Your task to perform on an android device: clear history in the chrome app Image 0: 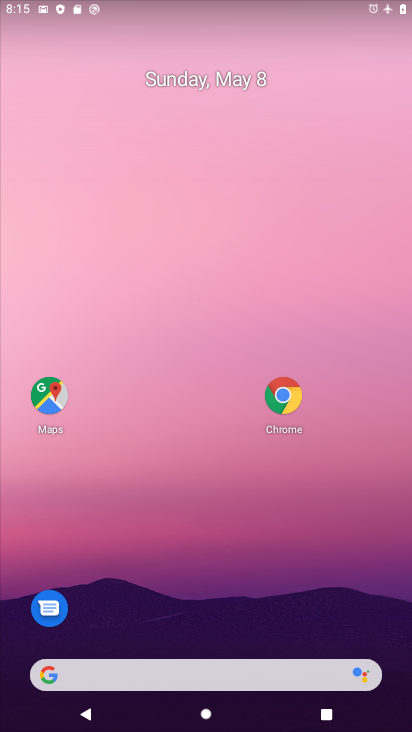
Step 0: drag from (204, 681) to (321, 233)
Your task to perform on an android device: clear history in the chrome app Image 1: 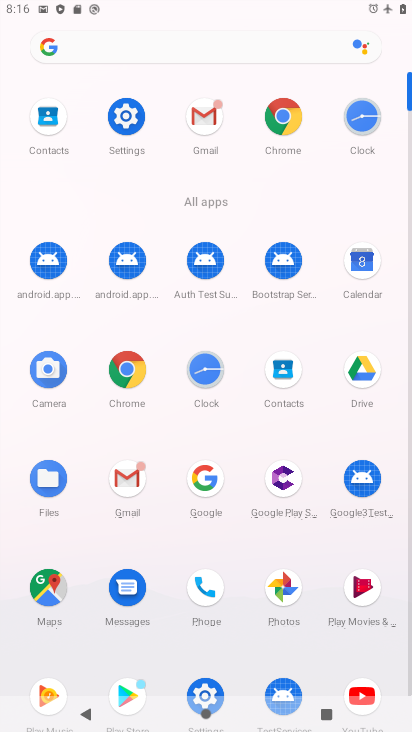
Step 1: click (292, 116)
Your task to perform on an android device: clear history in the chrome app Image 2: 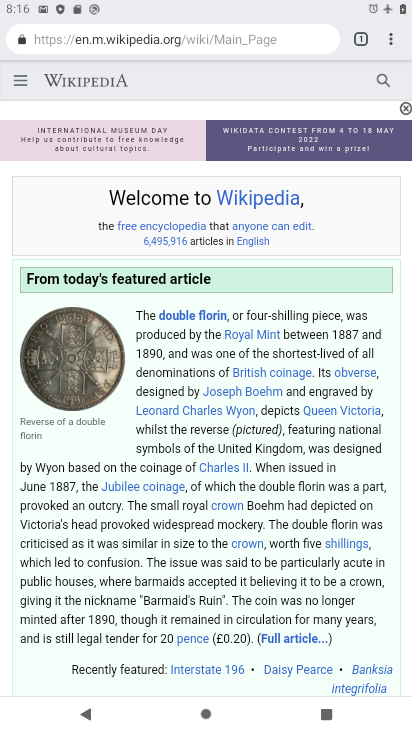
Step 2: drag from (388, 41) to (254, 221)
Your task to perform on an android device: clear history in the chrome app Image 3: 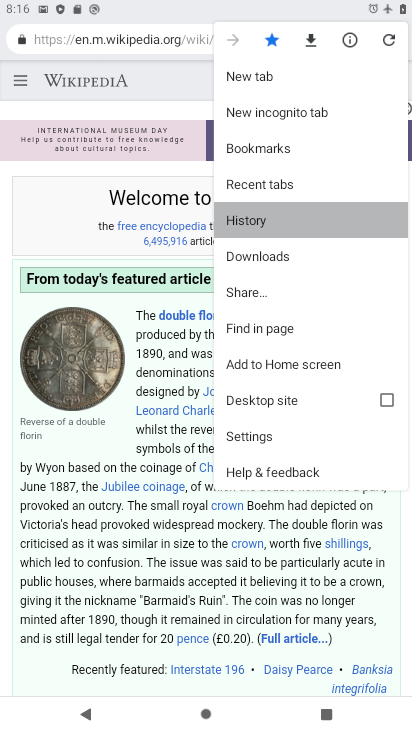
Step 3: click (254, 221)
Your task to perform on an android device: clear history in the chrome app Image 4: 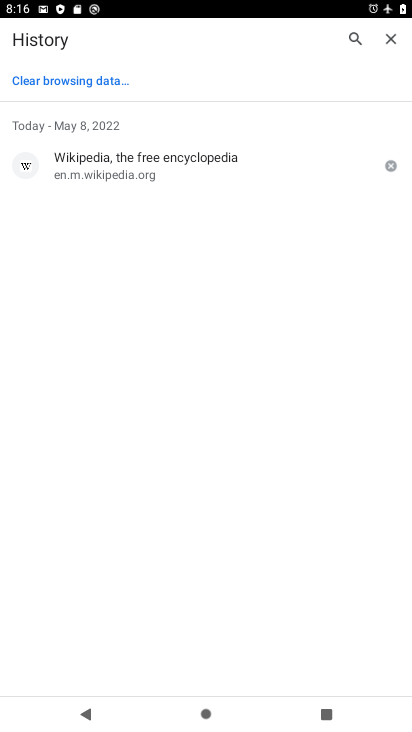
Step 4: click (46, 78)
Your task to perform on an android device: clear history in the chrome app Image 5: 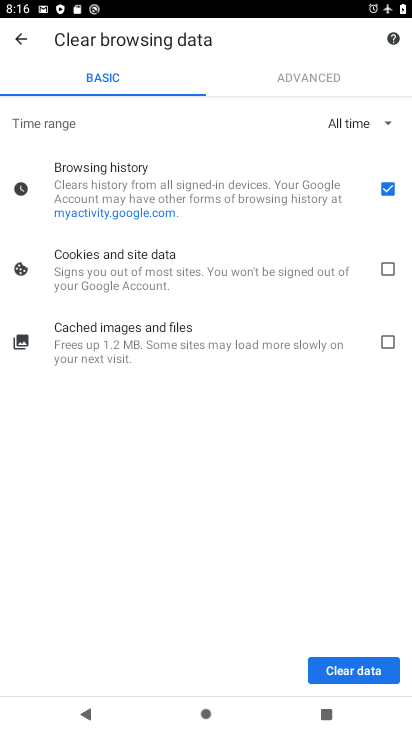
Step 5: click (390, 269)
Your task to perform on an android device: clear history in the chrome app Image 6: 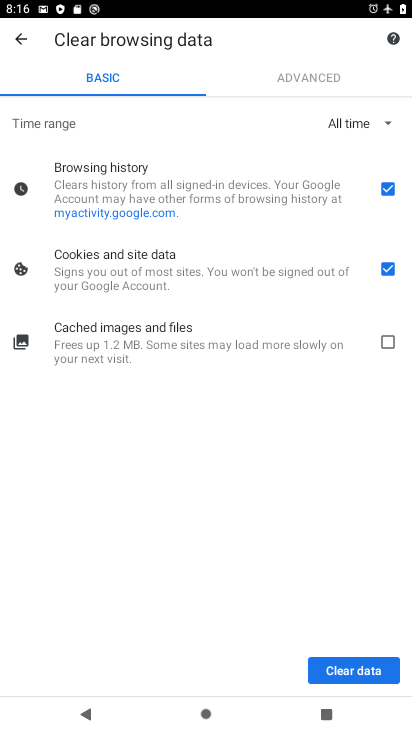
Step 6: click (389, 342)
Your task to perform on an android device: clear history in the chrome app Image 7: 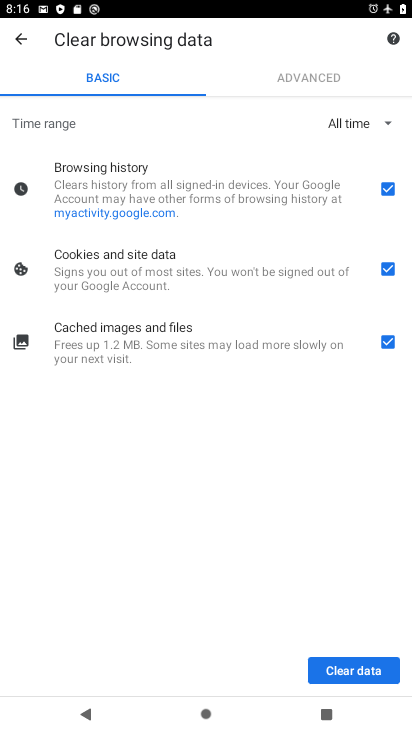
Step 7: click (359, 672)
Your task to perform on an android device: clear history in the chrome app Image 8: 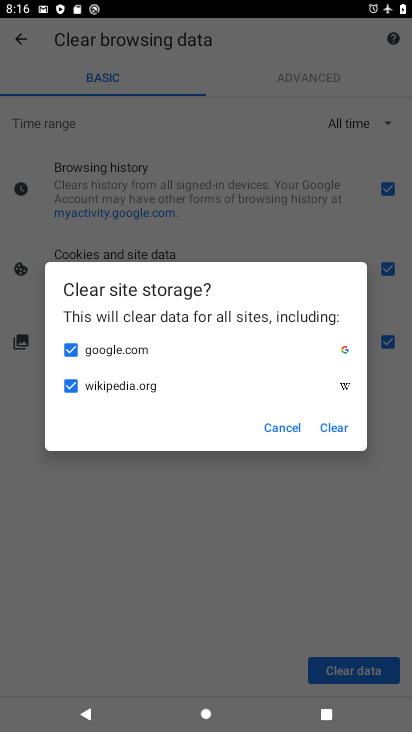
Step 8: click (343, 425)
Your task to perform on an android device: clear history in the chrome app Image 9: 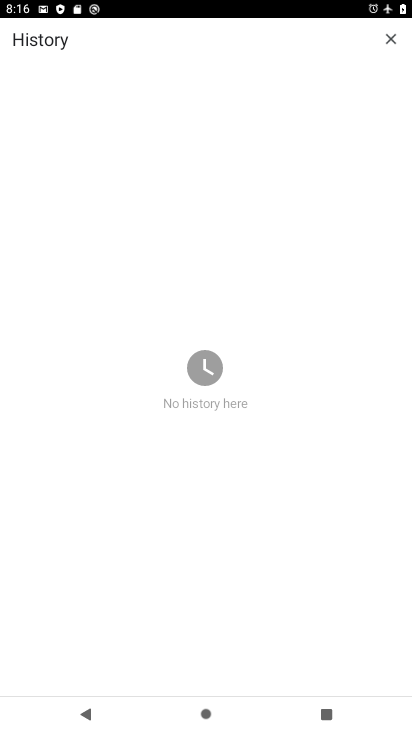
Step 9: task complete